Your task to perform on an android device: Go to eBay Image 0: 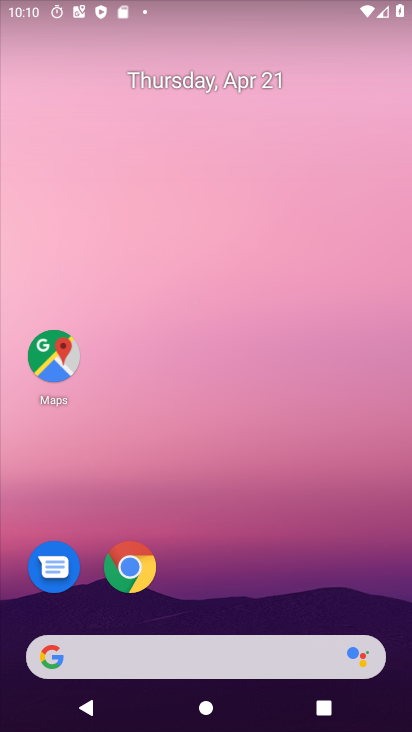
Step 0: click (145, 563)
Your task to perform on an android device: Go to eBay Image 1: 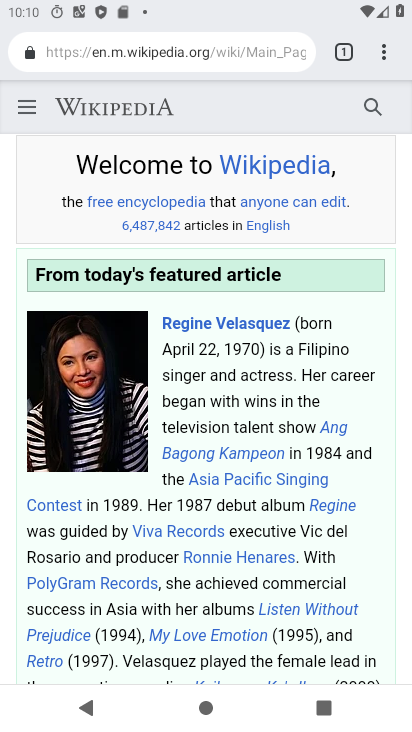
Step 1: click (120, 44)
Your task to perform on an android device: Go to eBay Image 2: 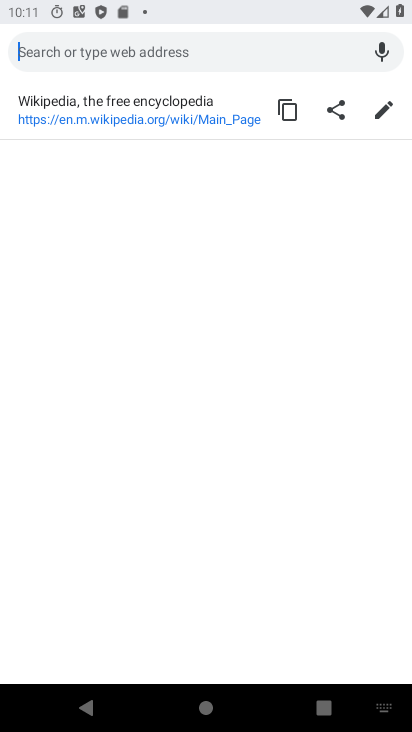
Step 2: type "eBay"
Your task to perform on an android device: Go to eBay Image 3: 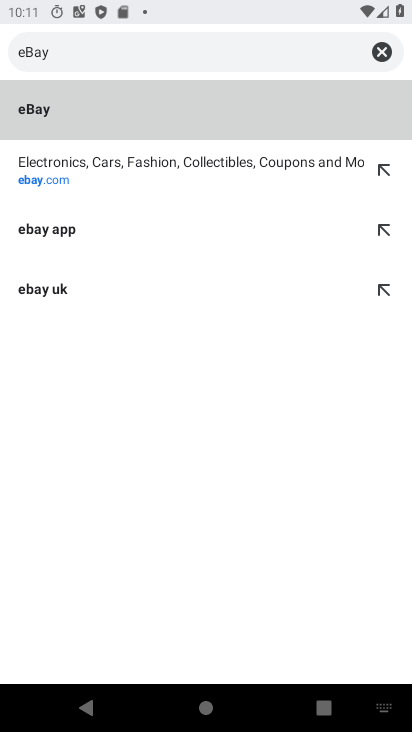
Step 3: click (76, 119)
Your task to perform on an android device: Go to eBay Image 4: 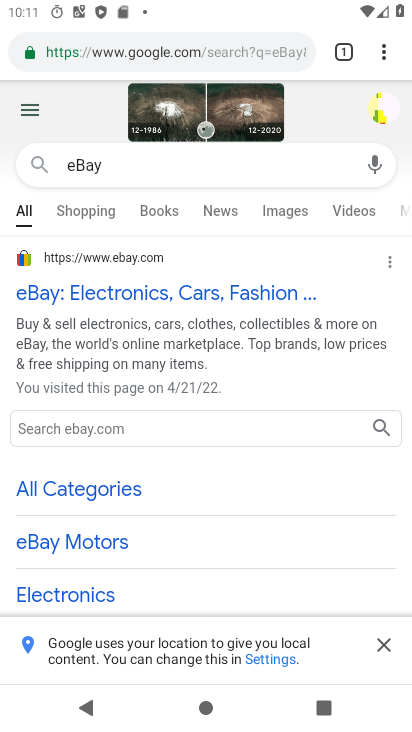
Step 4: task complete